Your task to perform on an android device: Open the Play Movies app and select the watchlist tab. Image 0: 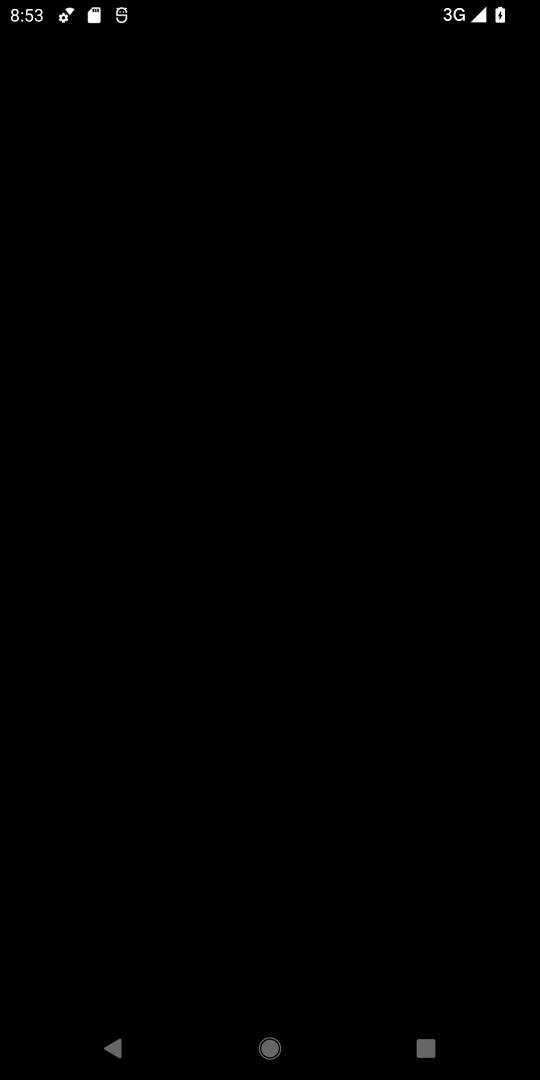
Step 0: task impossible